Your task to perform on an android device: Go to Google maps Image 0: 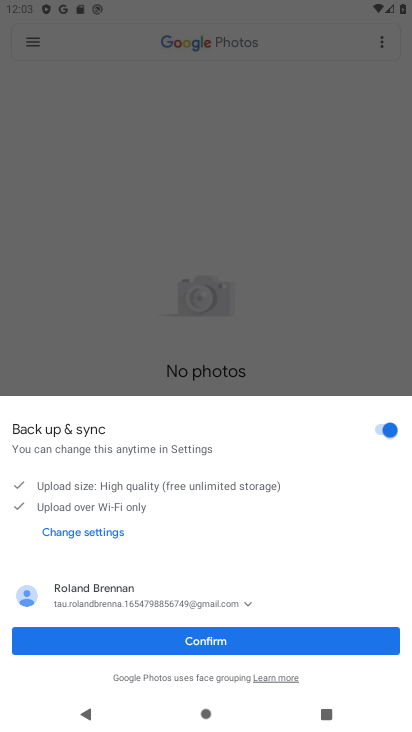
Step 0: press home button
Your task to perform on an android device: Go to Google maps Image 1: 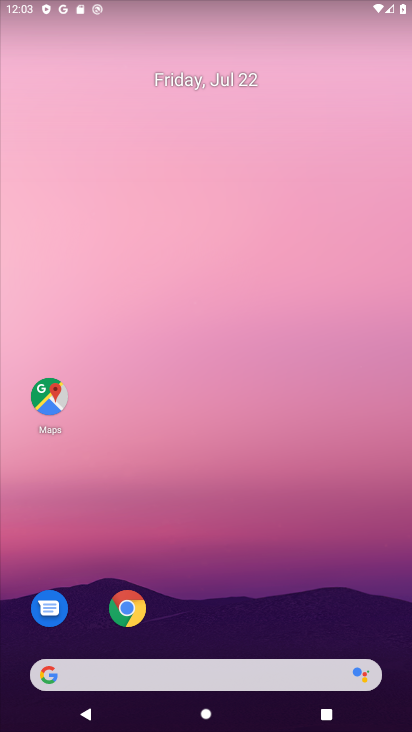
Step 1: click (48, 391)
Your task to perform on an android device: Go to Google maps Image 2: 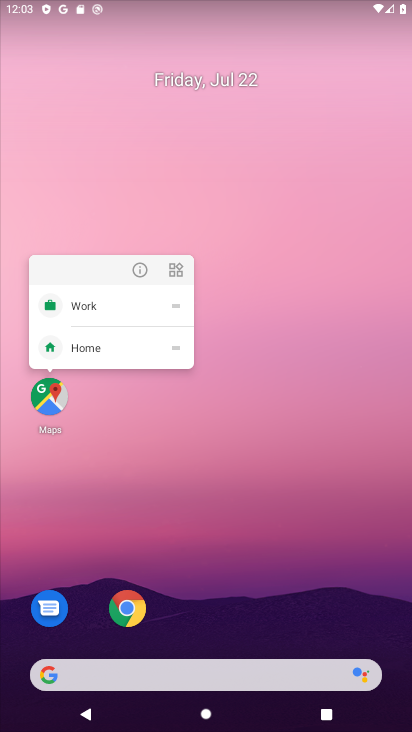
Step 2: click (54, 393)
Your task to perform on an android device: Go to Google maps Image 3: 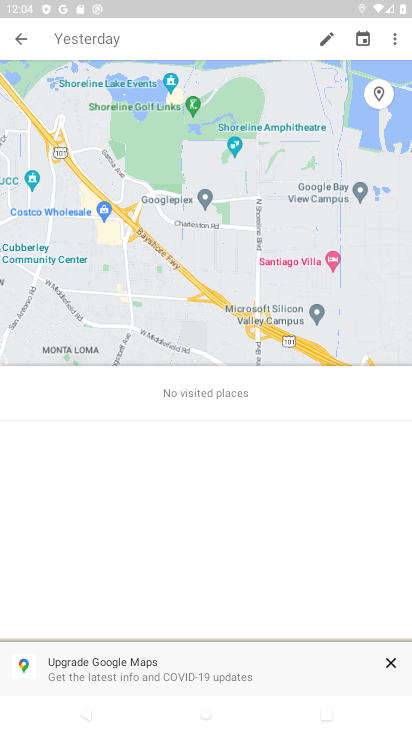
Step 3: click (25, 40)
Your task to perform on an android device: Go to Google maps Image 4: 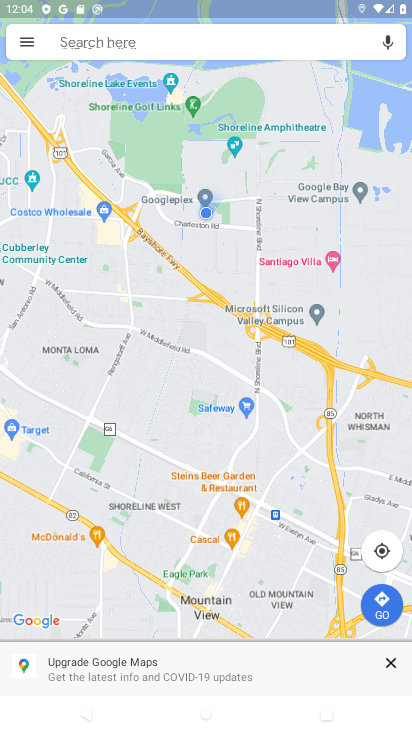
Step 4: task complete